Your task to perform on an android device: Open Google Chrome Image 0: 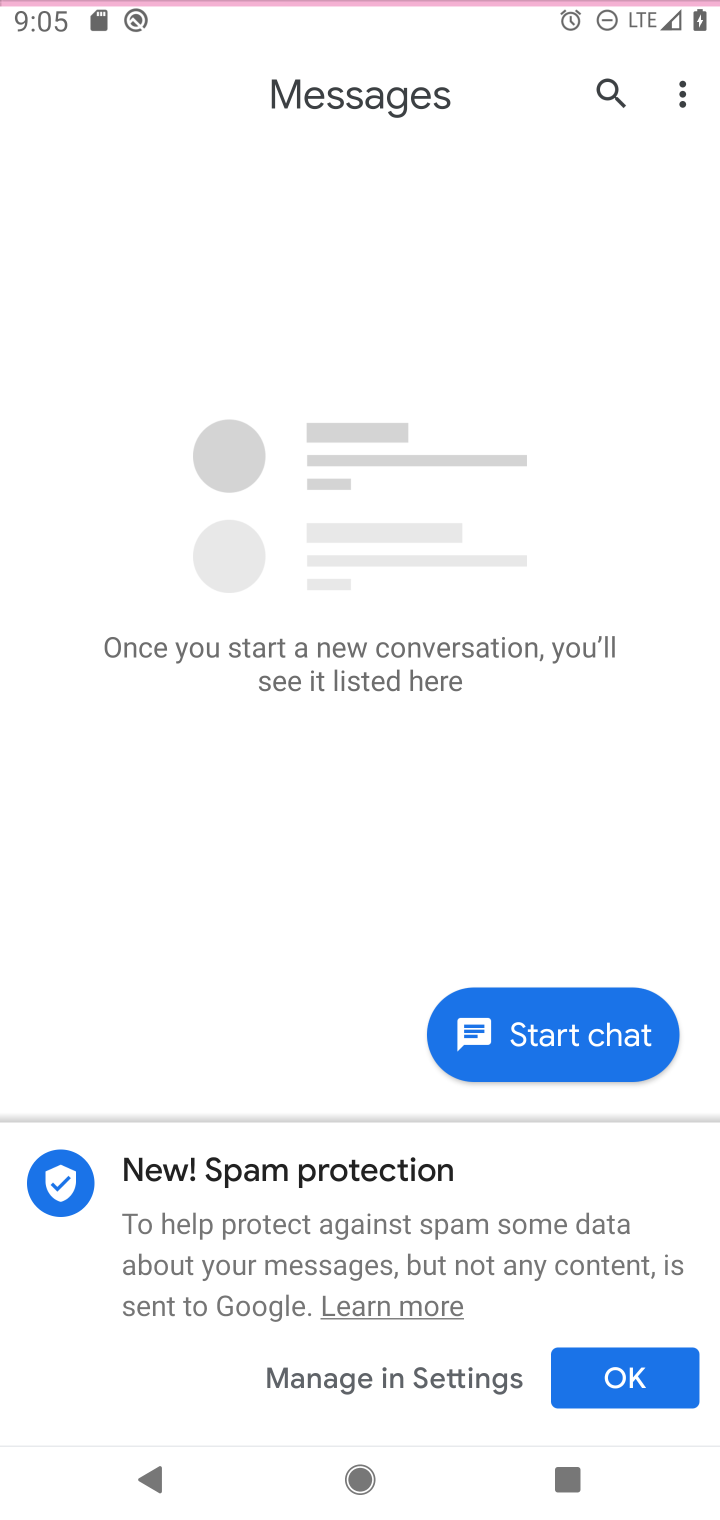
Step 0: press home button
Your task to perform on an android device: Open Google Chrome Image 1: 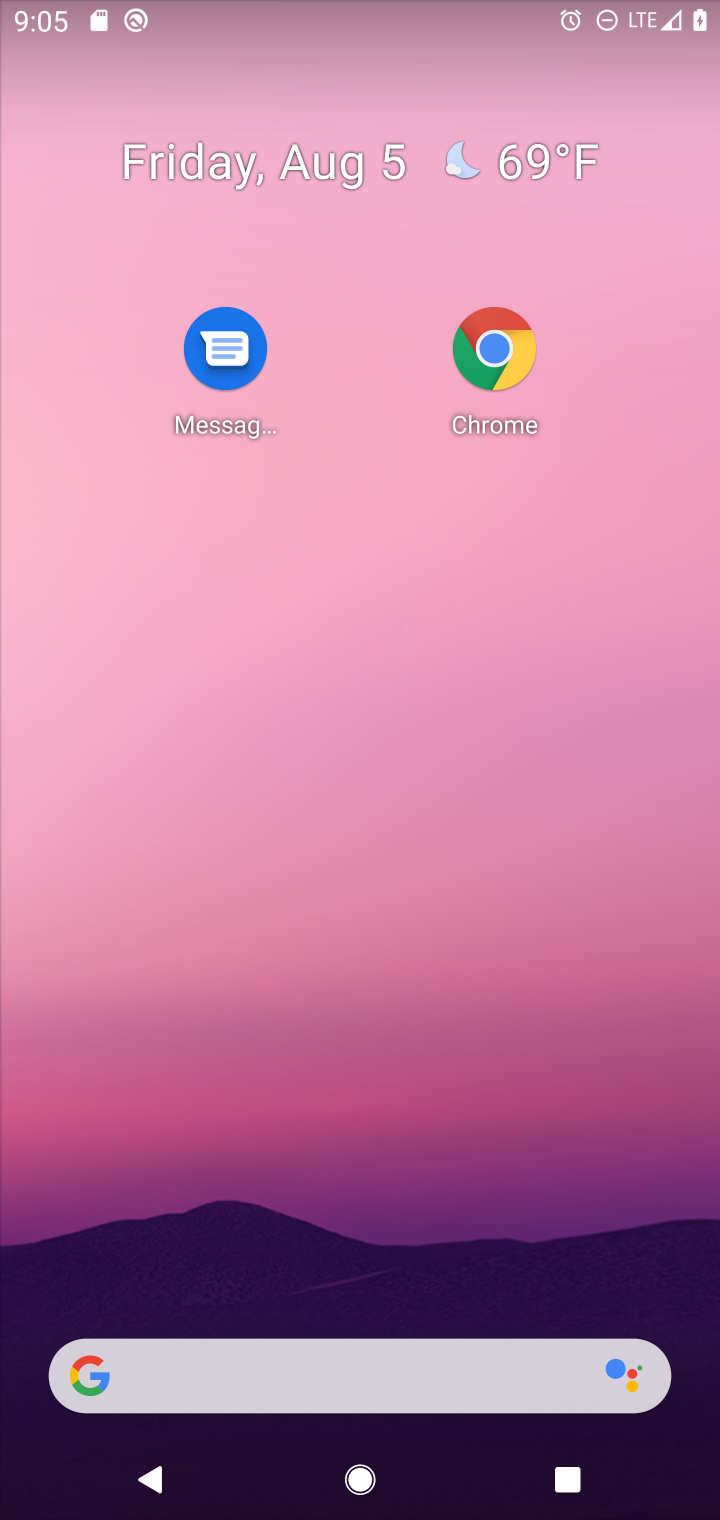
Step 1: drag from (441, 1401) to (487, 991)
Your task to perform on an android device: Open Google Chrome Image 2: 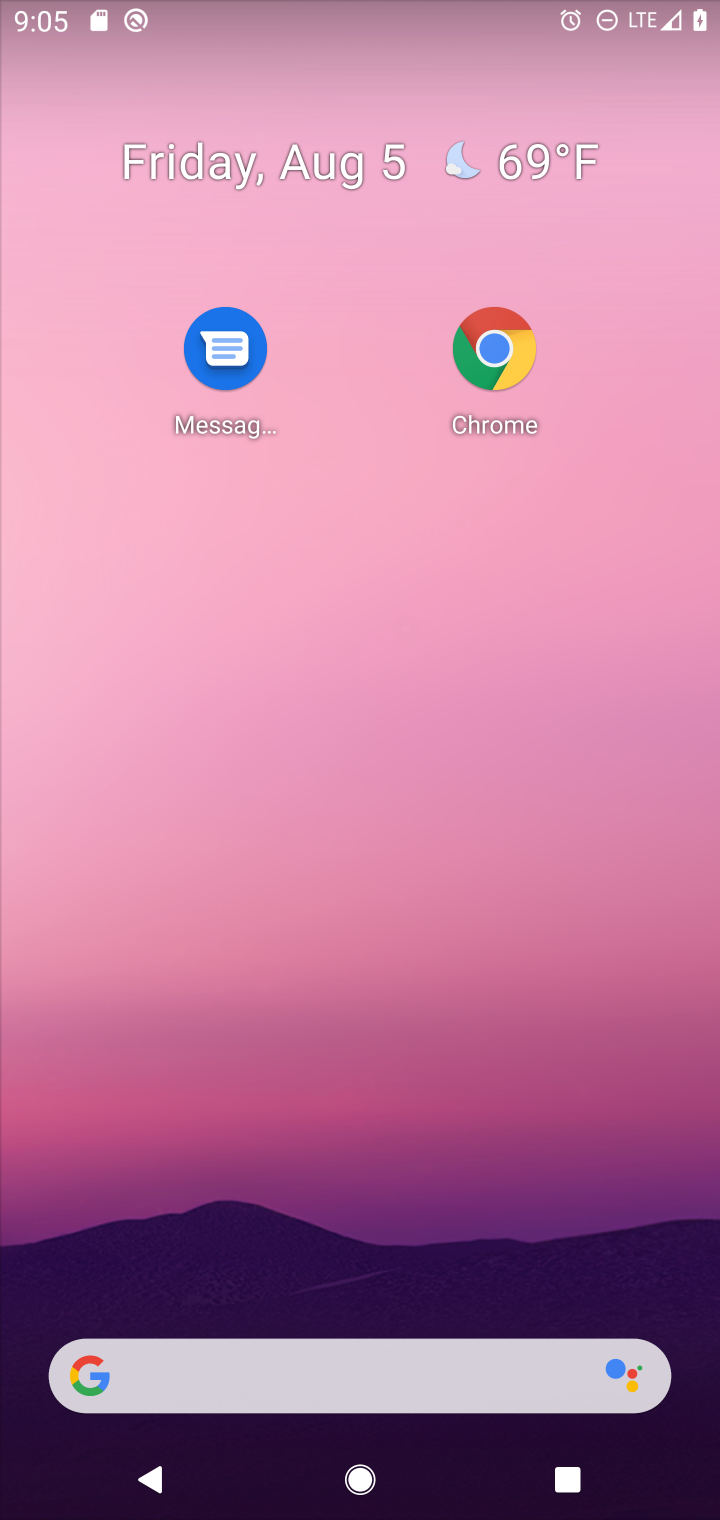
Step 2: drag from (413, 1416) to (558, 592)
Your task to perform on an android device: Open Google Chrome Image 3: 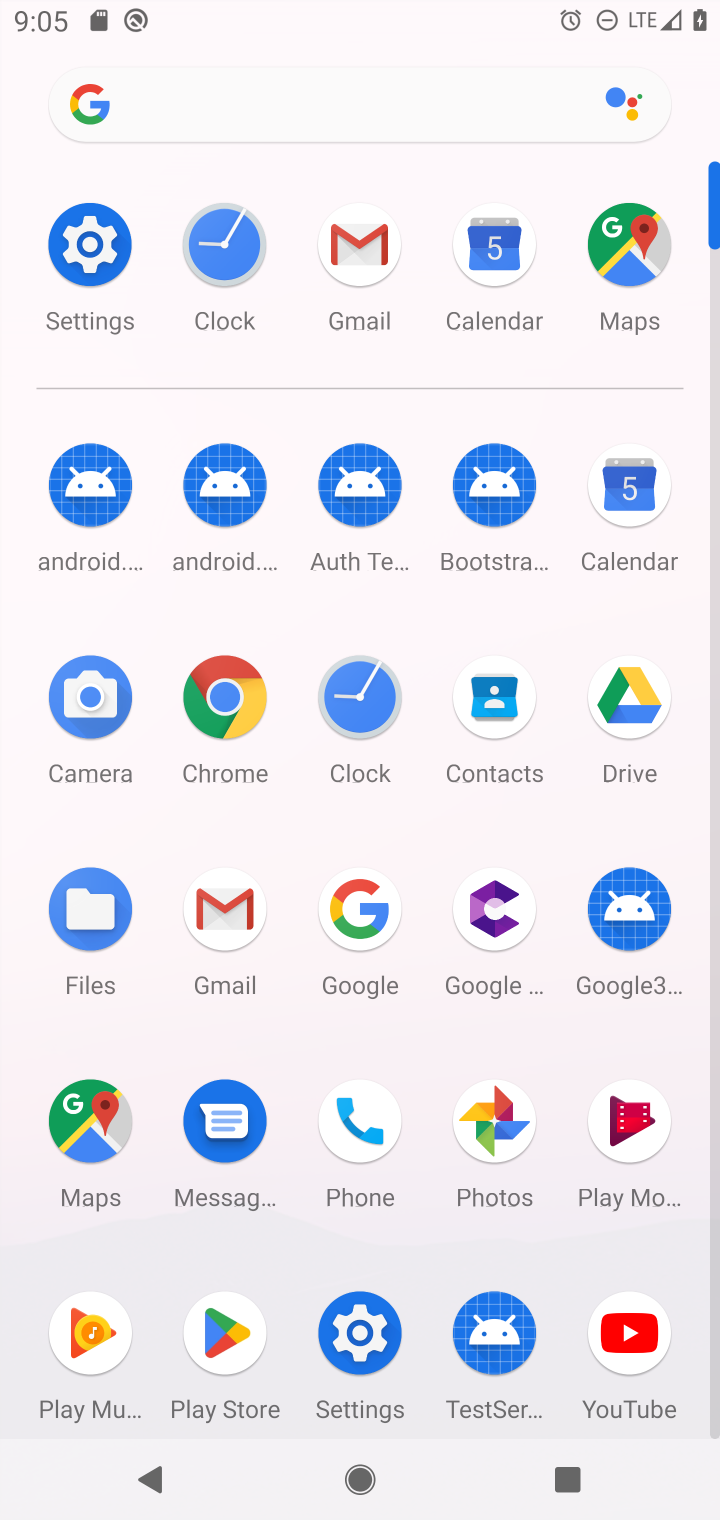
Step 3: click (235, 754)
Your task to perform on an android device: Open Google Chrome Image 4: 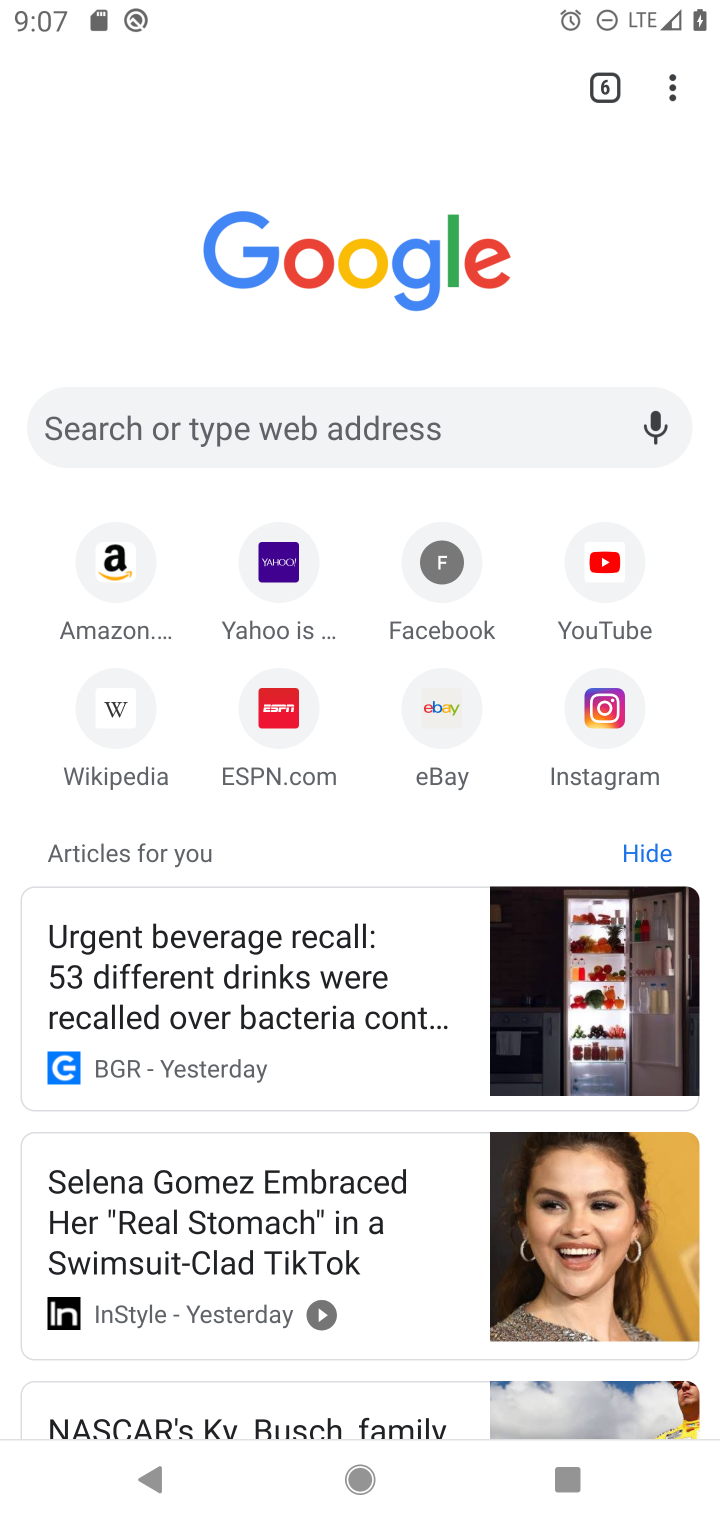
Step 4: task complete